Your task to perform on an android device: What's the weather? Image 0: 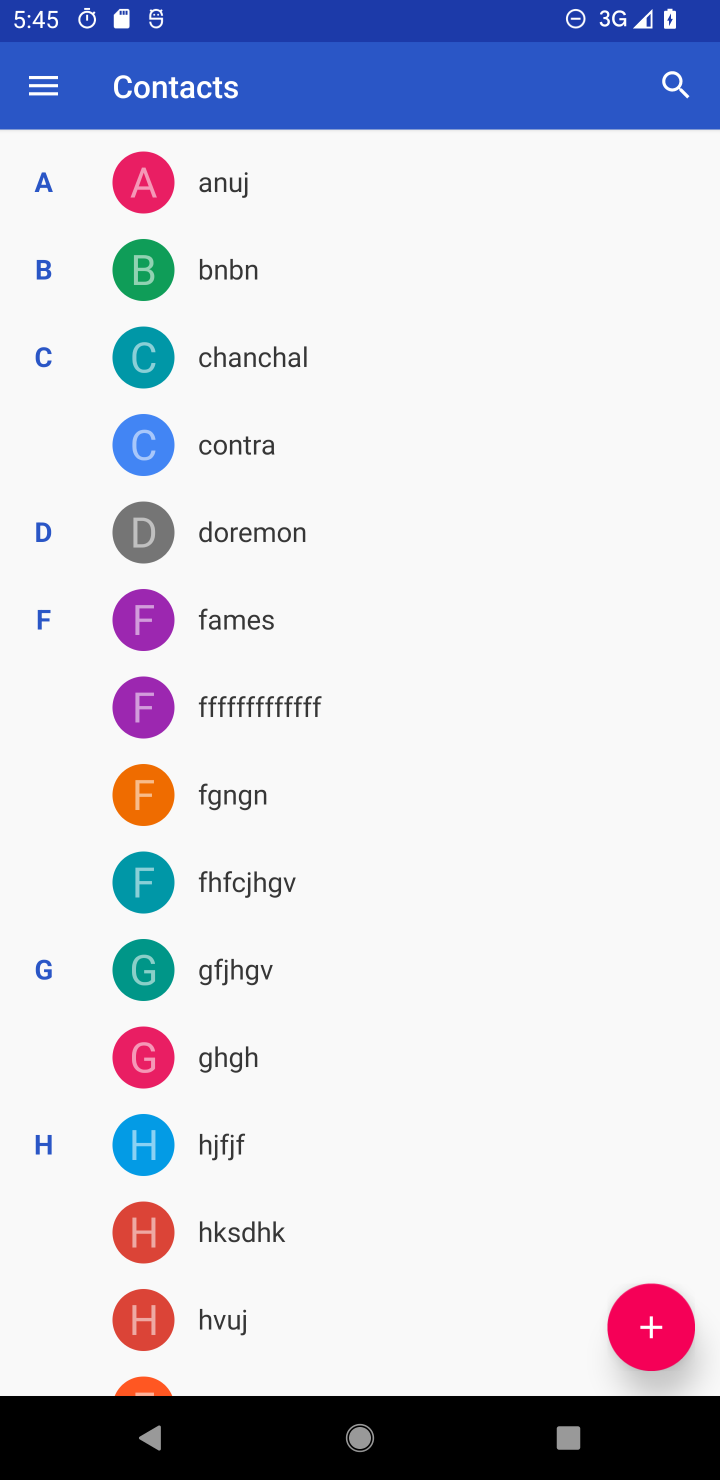
Step 0: click (681, 1204)
Your task to perform on an android device: What's the weather? Image 1: 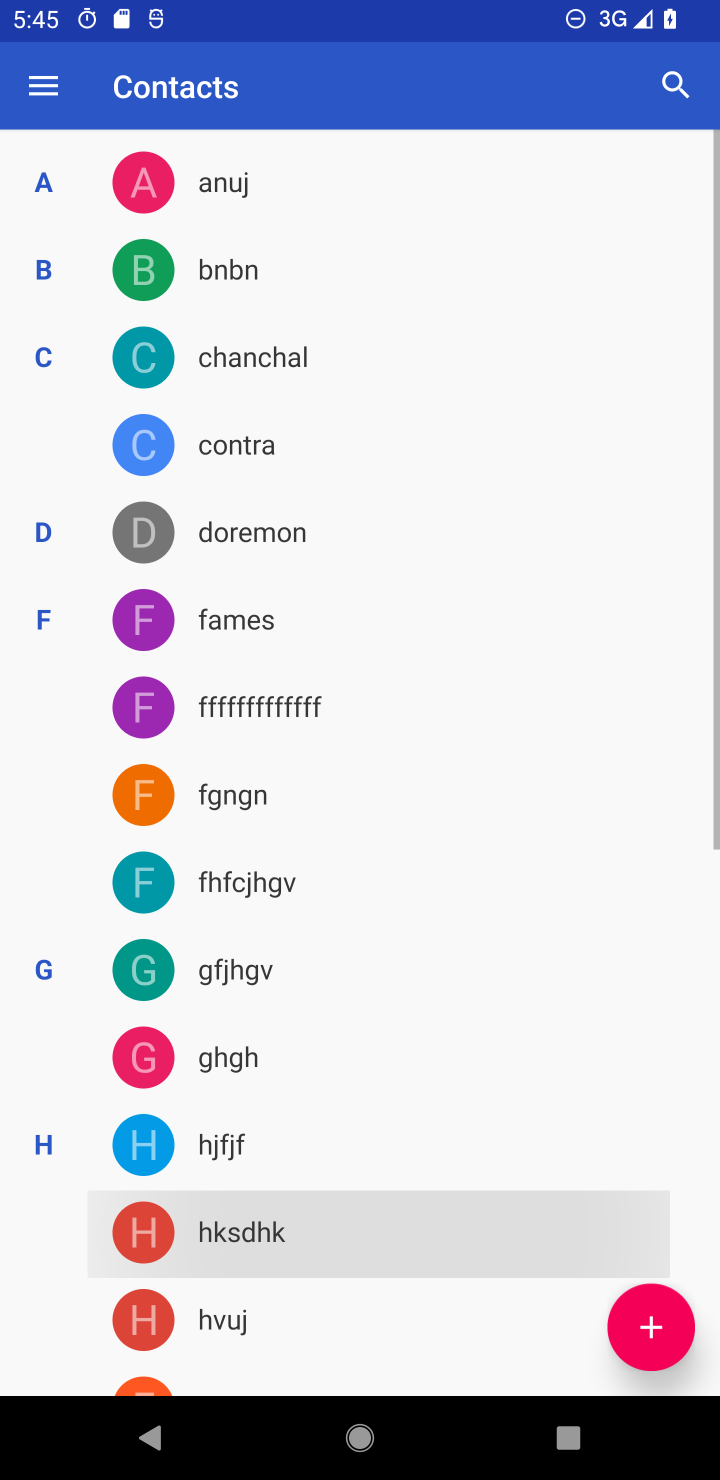
Step 1: drag from (378, 917) to (403, 654)
Your task to perform on an android device: What's the weather? Image 2: 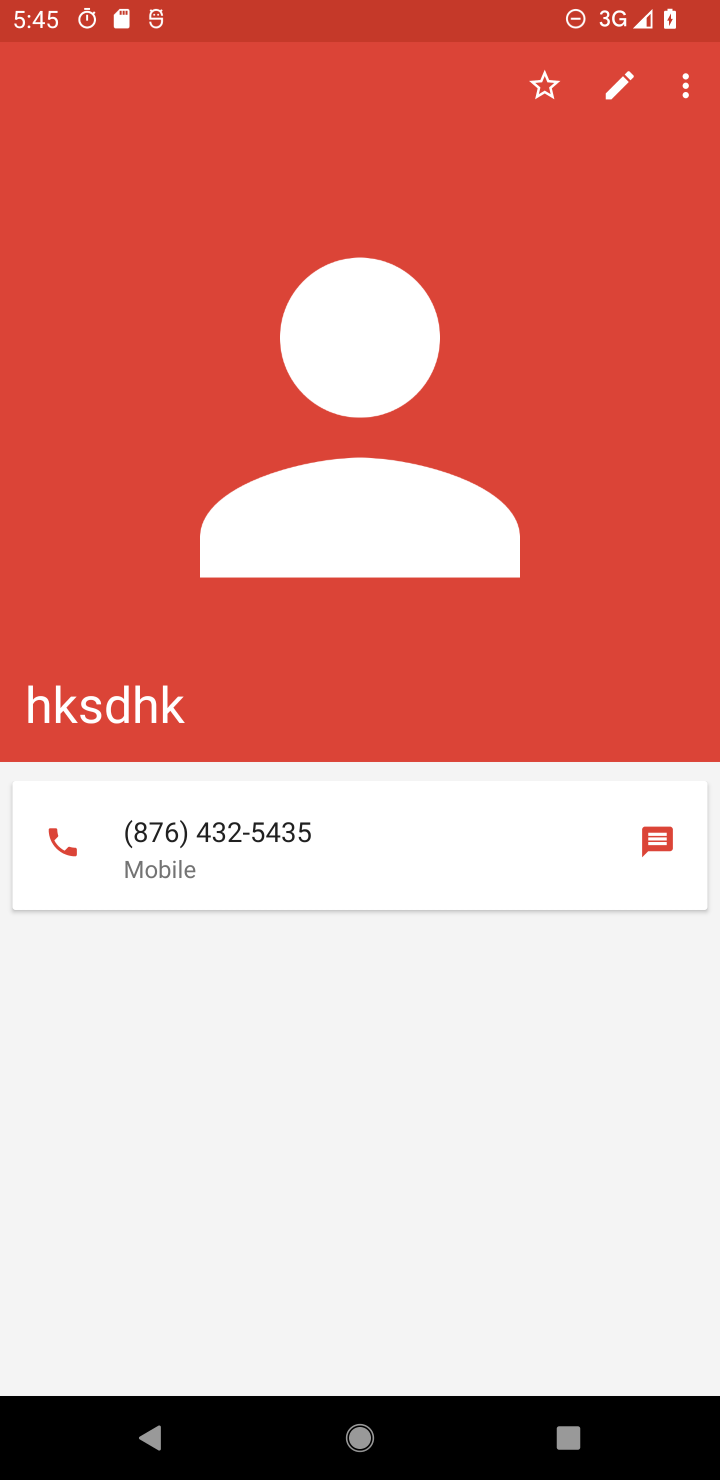
Step 2: drag from (393, 900) to (660, 690)
Your task to perform on an android device: What's the weather? Image 3: 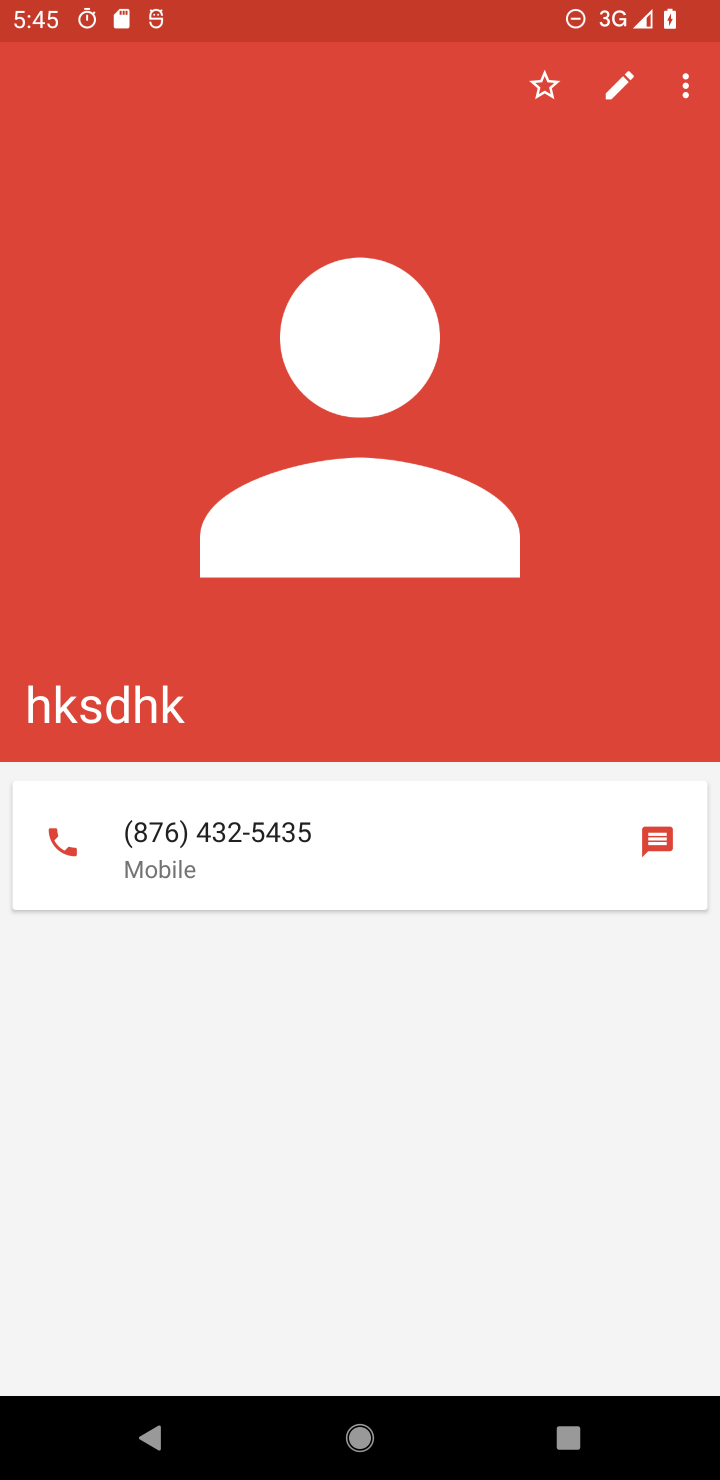
Step 3: press home button
Your task to perform on an android device: What's the weather? Image 4: 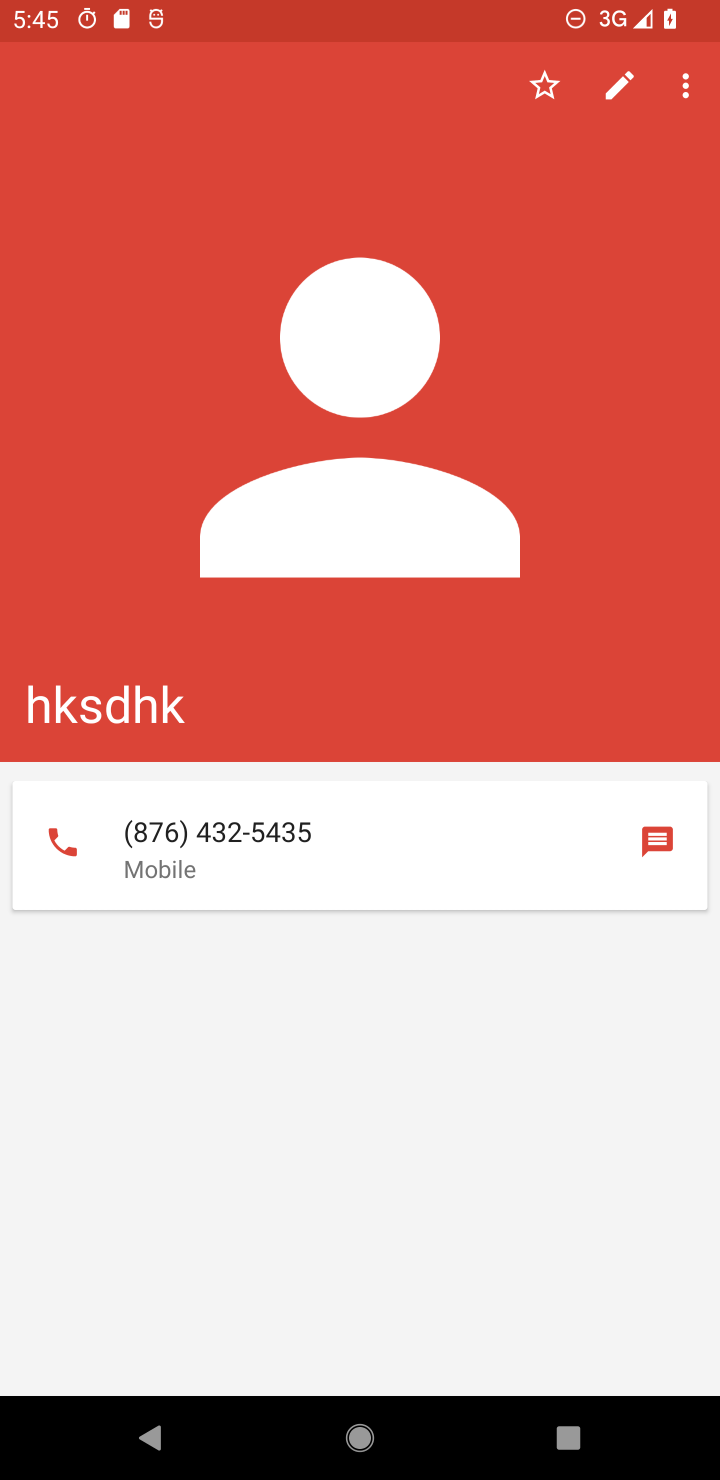
Step 4: drag from (445, 1129) to (338, 34)
Your task to perform on an android device: What's the weather? Image 5: 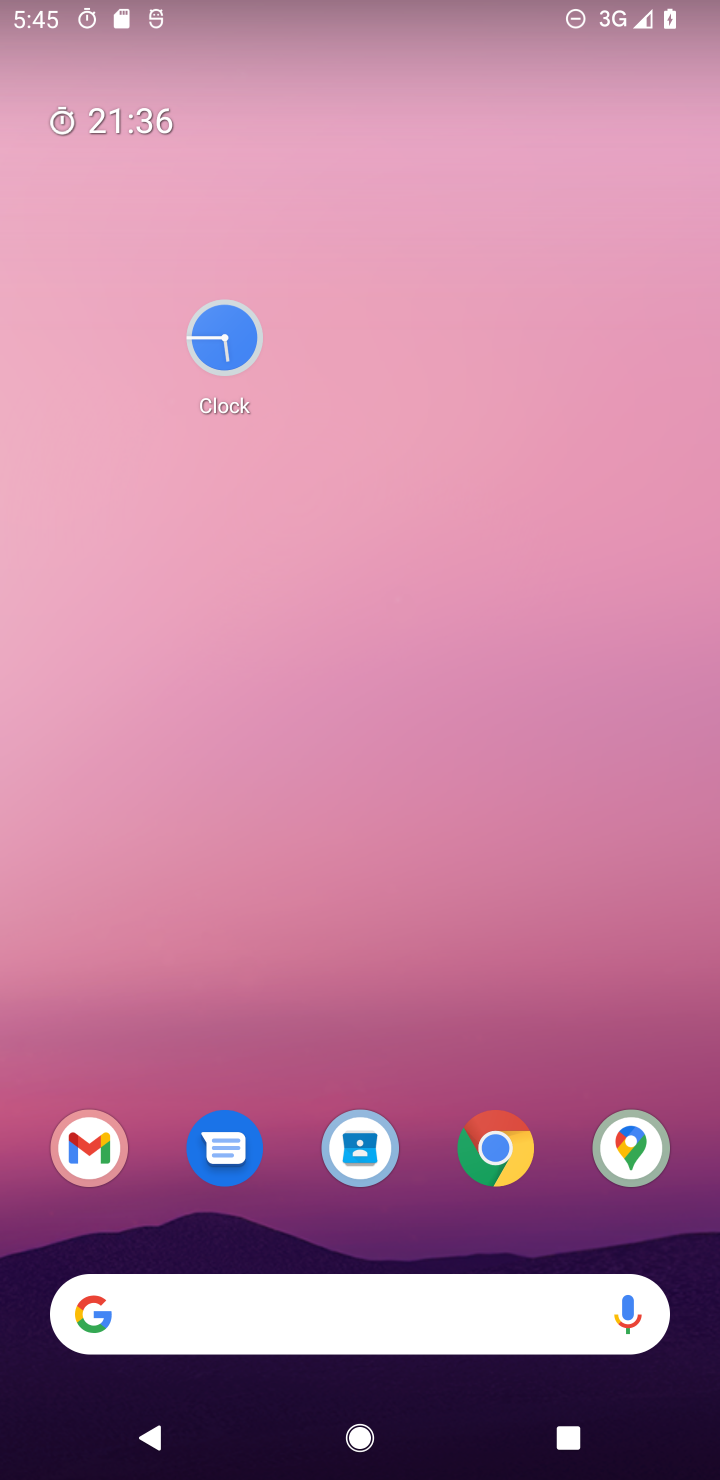
Step 5: drag from (422, 990) to (439, 32)
Your task to perform on an android device: What's the weather? Image 6: 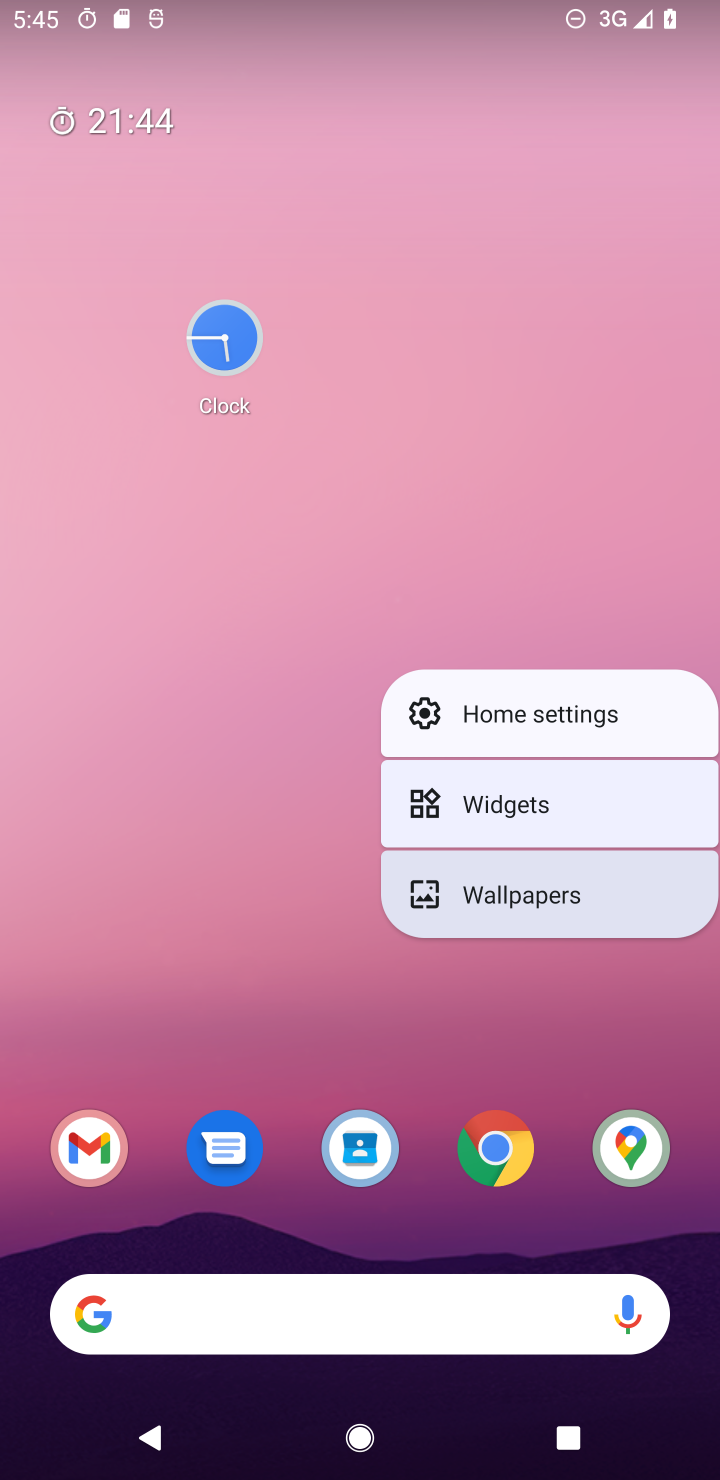
Step 6: drag from (343, 1170) to (455, 119)
Your task to perform on an android device: What's the weather? Image 7: 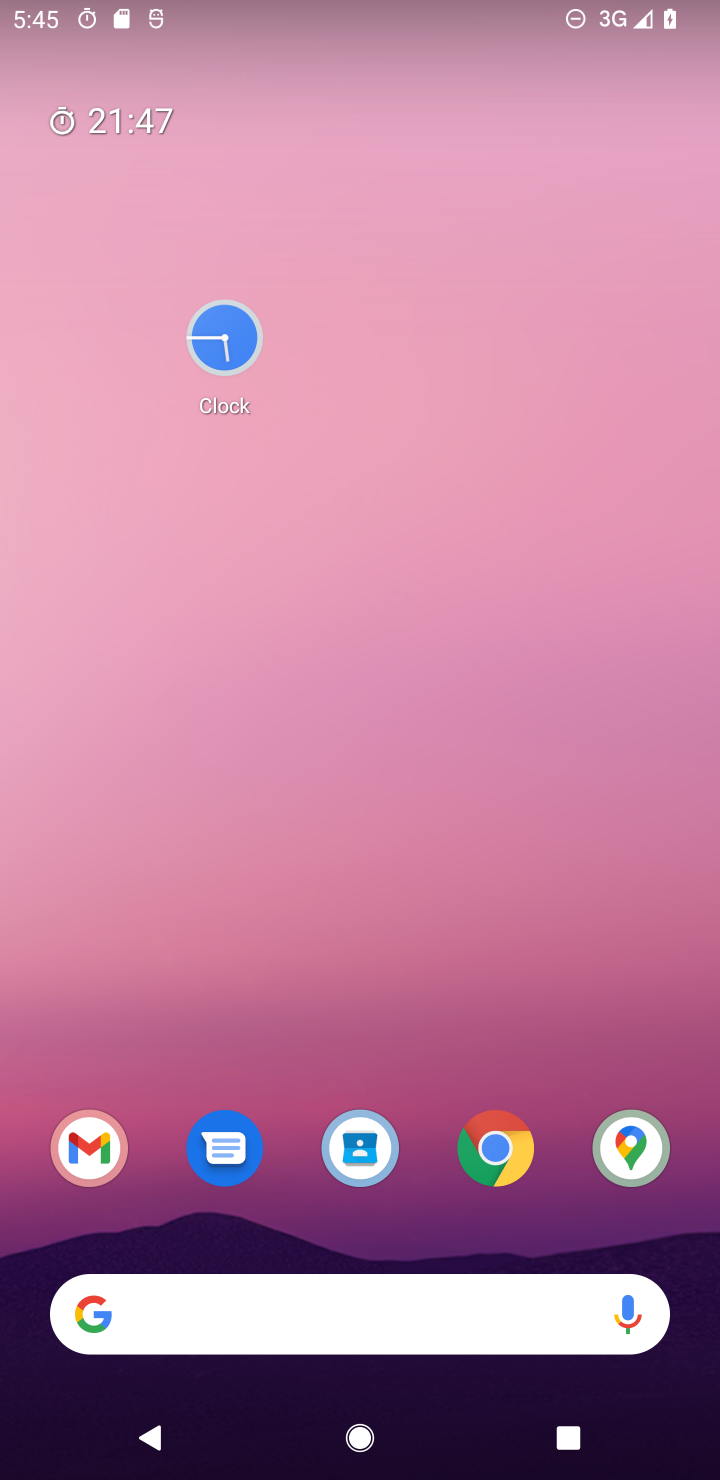
Step 7: drag from (385, 1165) to (543, 243)
Your task to perform on an android device: What's the weather? Image 8: 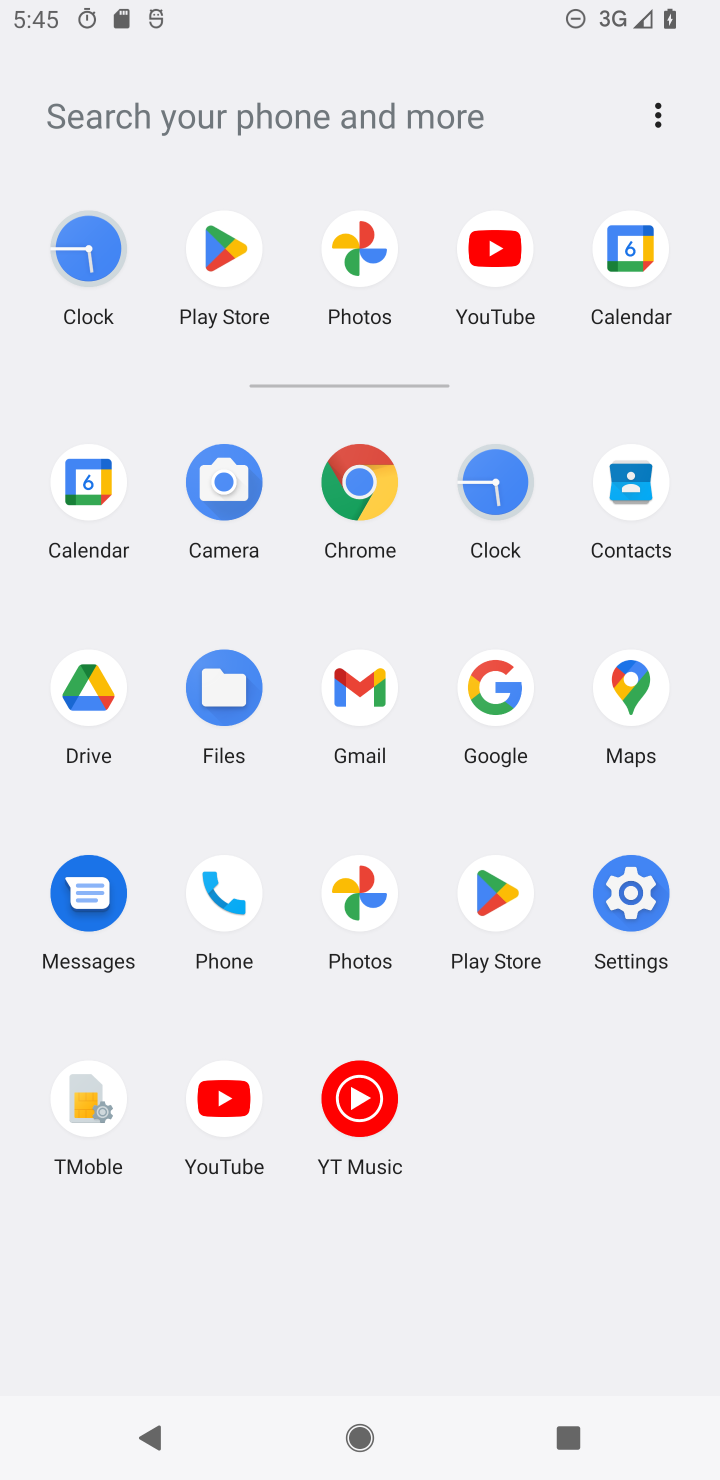
Step 8: click (314, 129)
Your task to perform on an android device: What's the weather? Image 9: 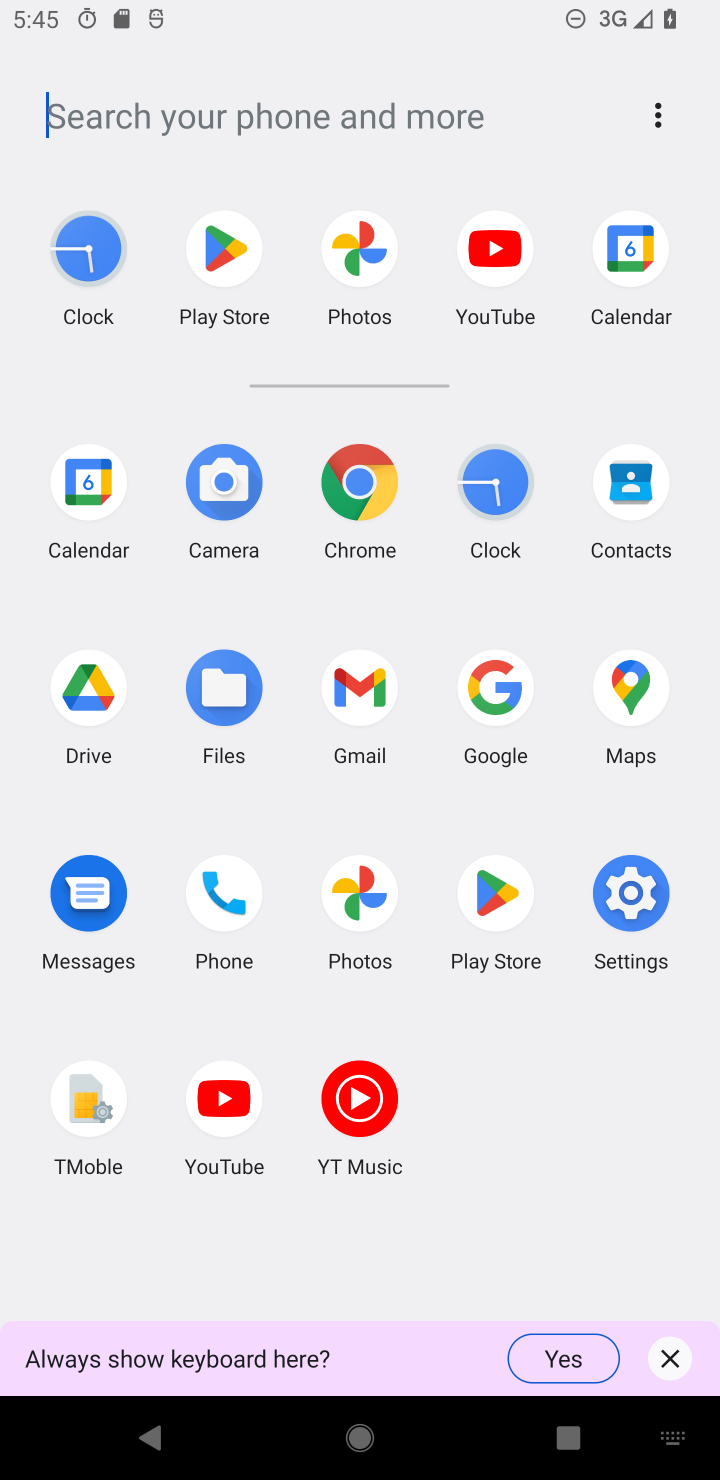
Step 9: type "weather?"
Your task to perform on an android device: What's the weather? Image 10: 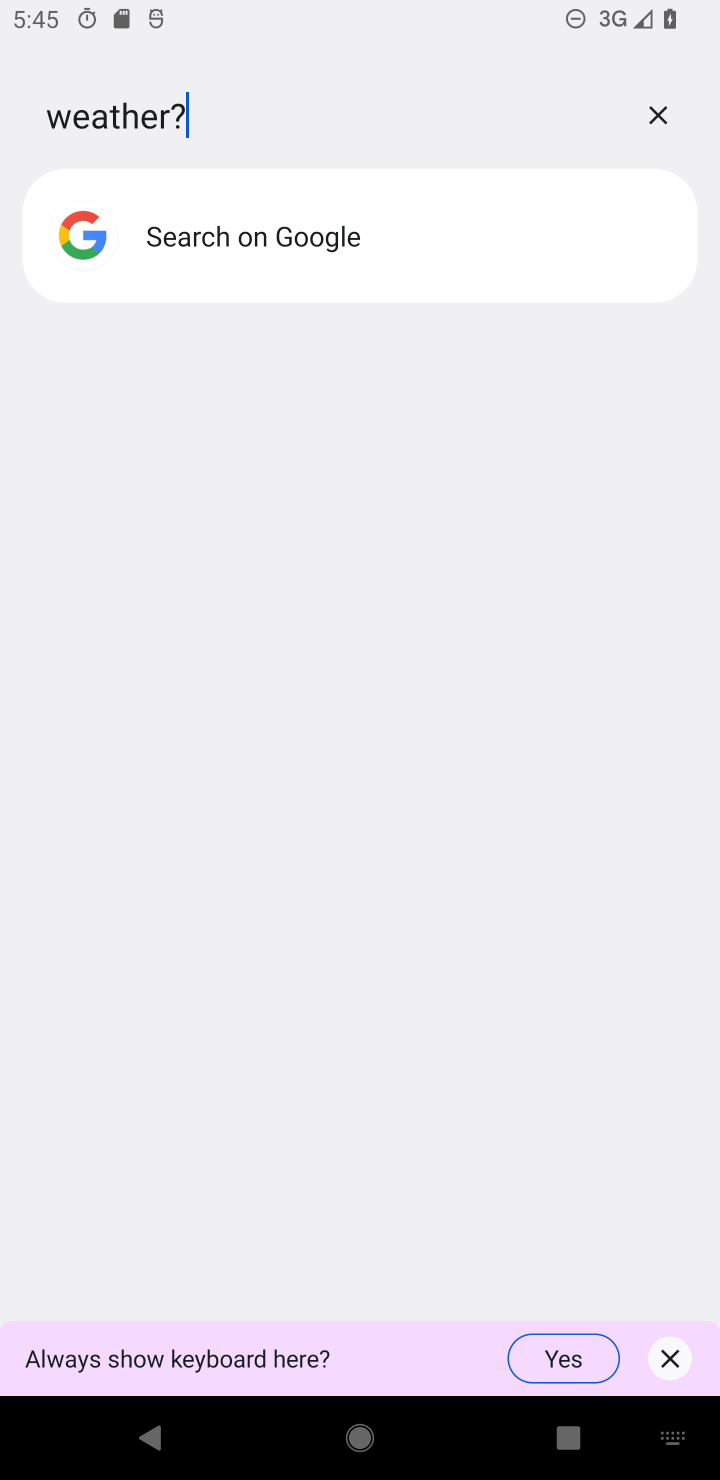
Step 10: click (197, 225)
Your task to perform on an android device: What's the weather? Image 11: 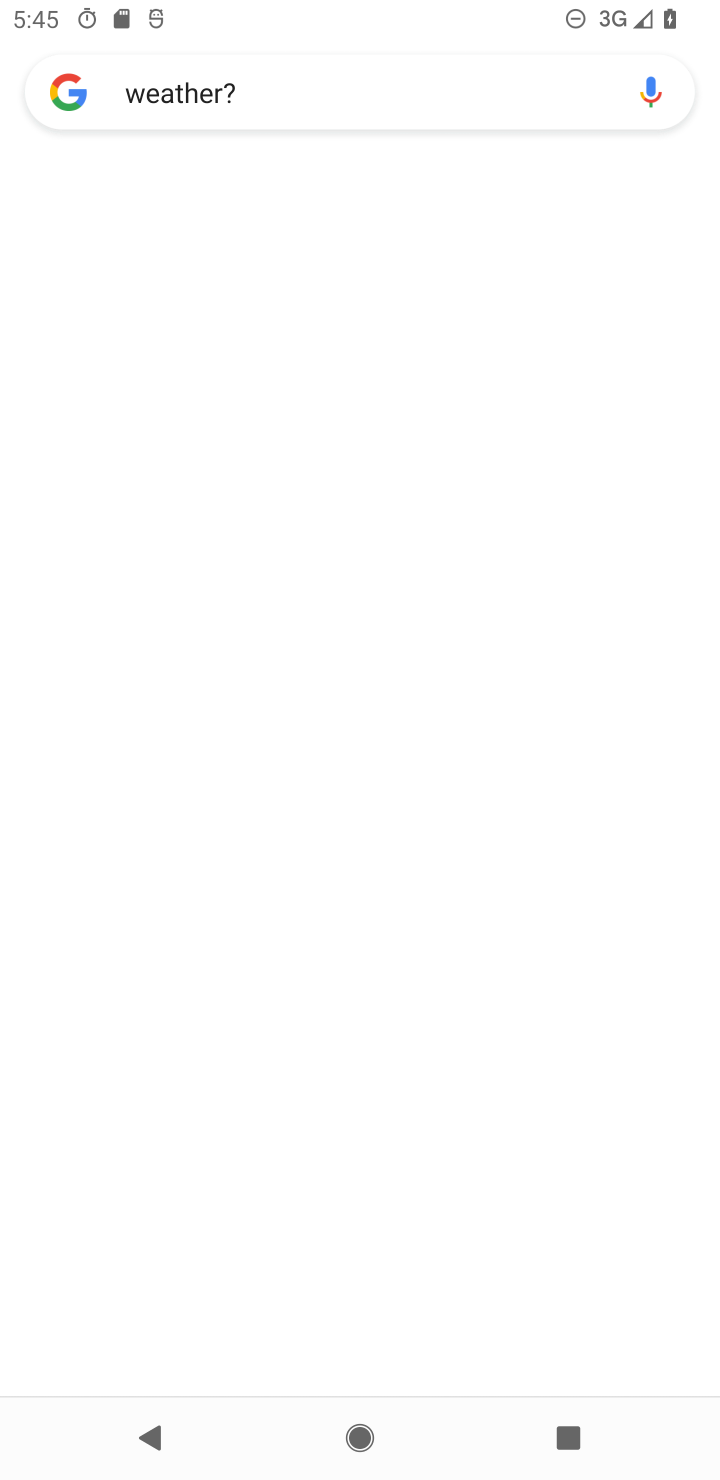
Step 11: click (191, 239)
Your task to perform on an android device: What's the weather? Image 12: 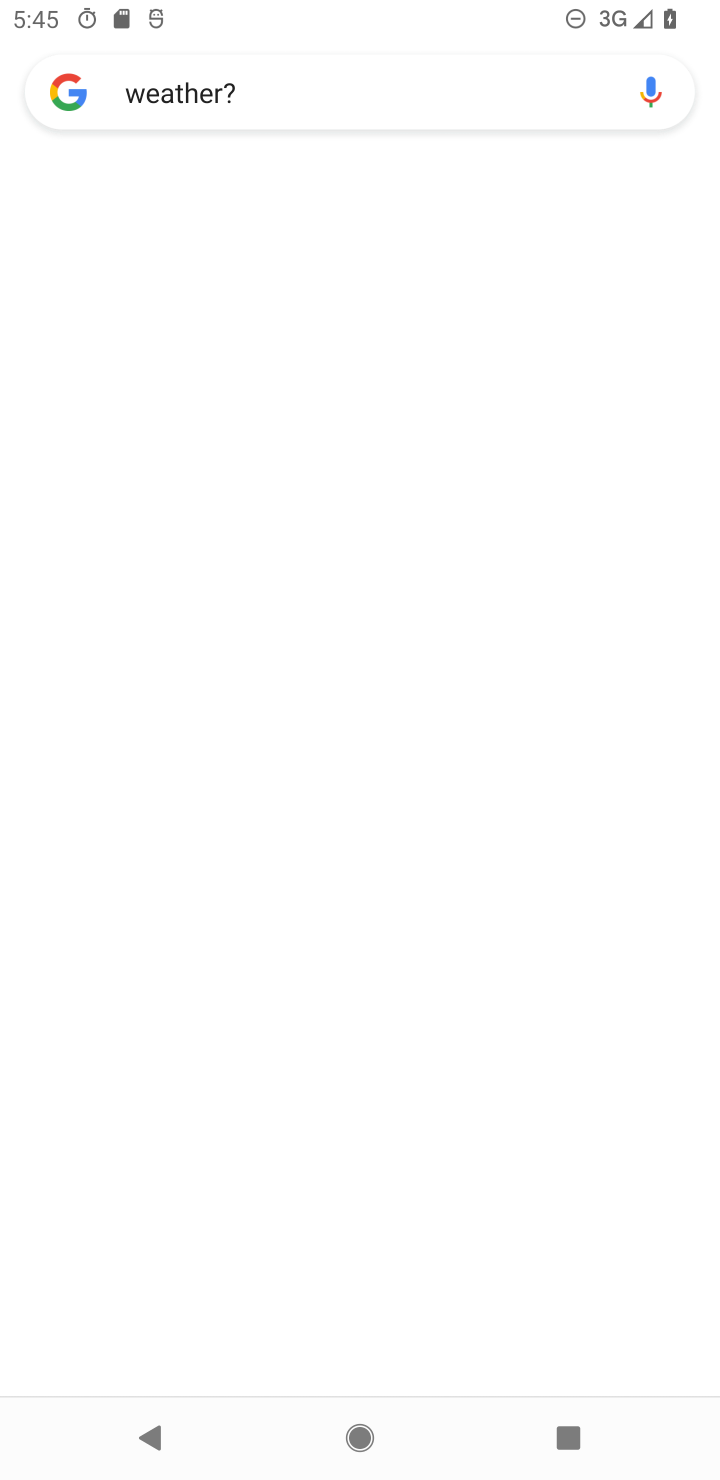
Step 12: task complete